Your task to perform on an android device: turn on airplane mode Image 0: 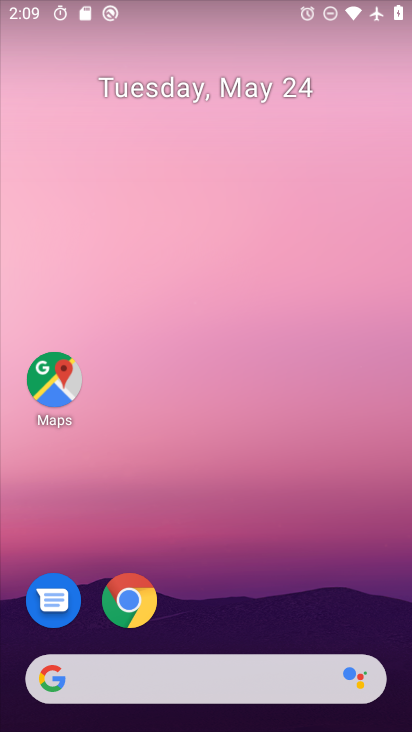
Step 0: drag from (204, 4) to (303, 617)
Your task to perform on an android device: turn on airplane mode Image 1: 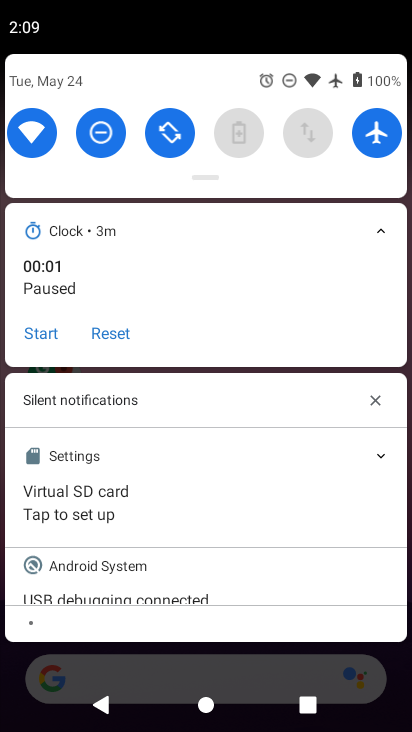
Step 1: task complete